Your task to perform on an android device: Open accessibility settings Image 0: 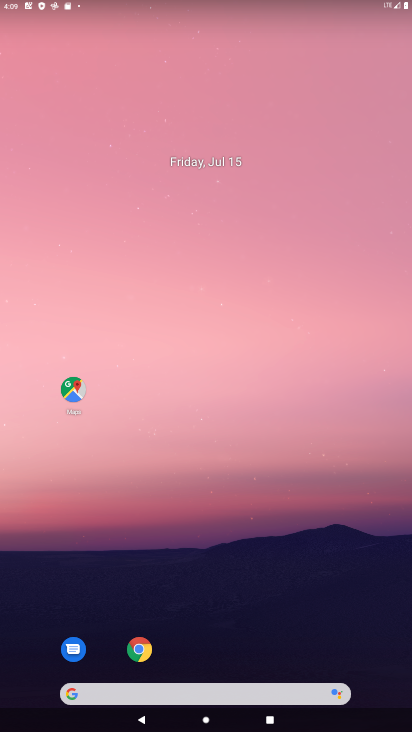
Step 0: drag from (262, 615) to (313, 49)
Your task to perform on an android device: Open accessibility settings Image 1: 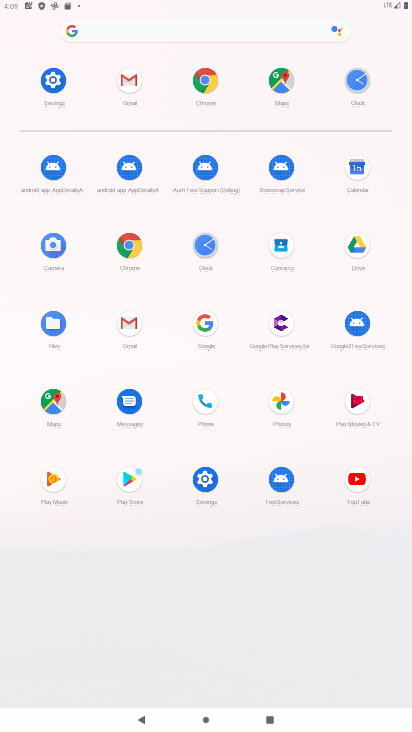
Step 1: click (46, 81)
Your task to perform on an android device: Open accessibility settings Image 2: 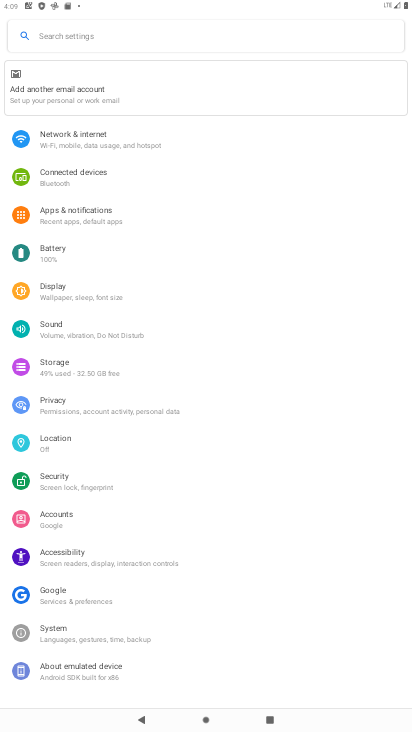
Step 2: click (55, 558)
Your task to perform on an android device: Open accessibility settings Image 3: 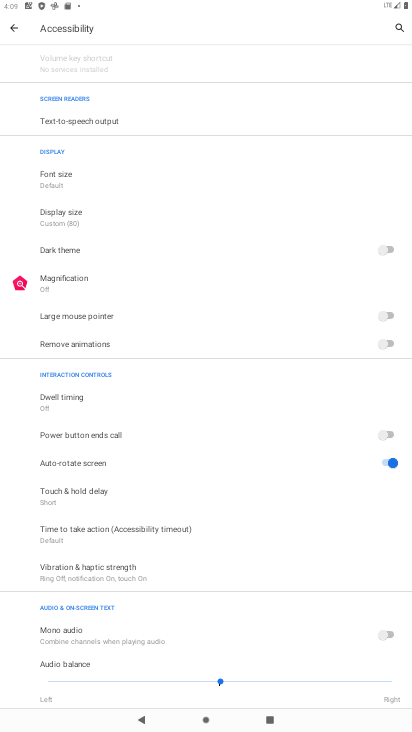
Step 3: task complete